Your task to perform on an android device: turn off location Image 0: 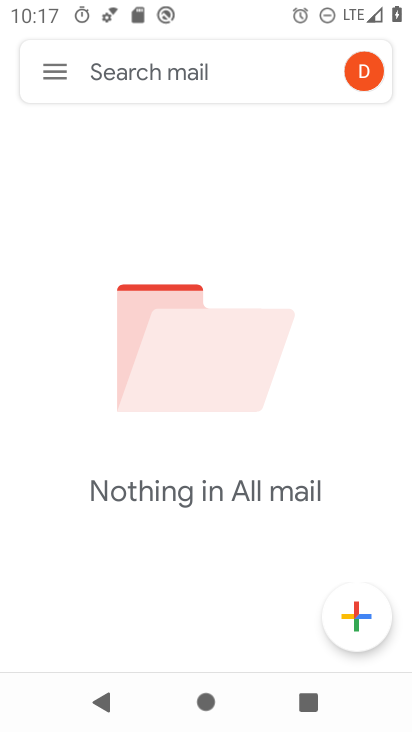
Step 0: press home button
Your task to perform on an android device: turn off location Image 1: 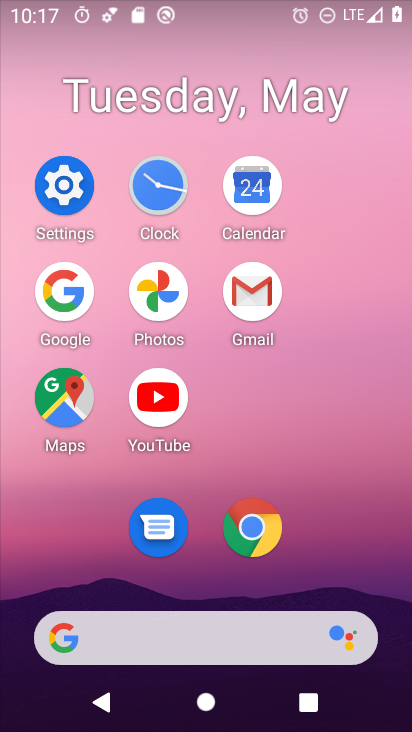
Step 1: click (61, 212)
Your task to perform on an android device: turn off location Image 2: 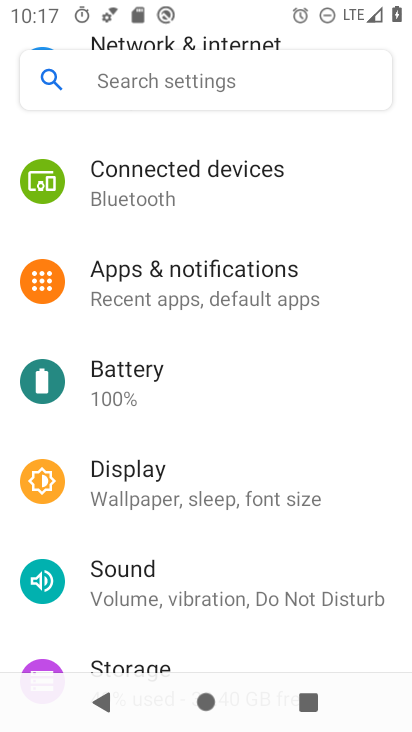
Step 2: drag from (192, 585) to (252, 262)
Your task to perform on an android device: turn off location Image 3: 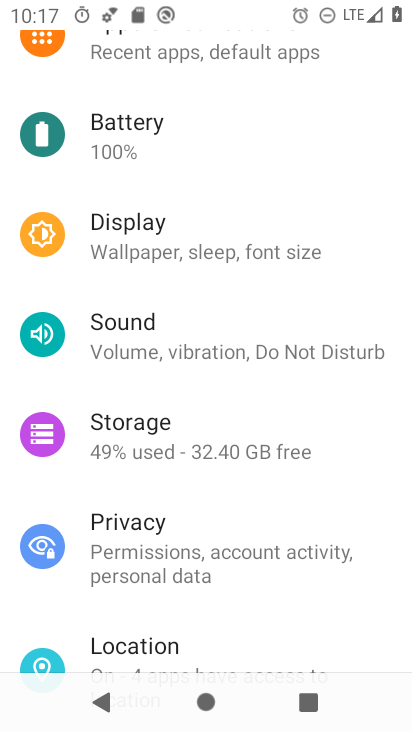
Step 3: click (172, 647)
Your task to perform on an android device: turn off location Image 4: 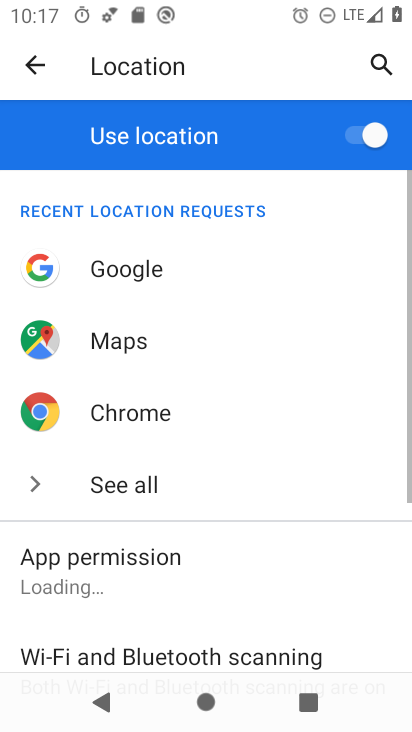
Step 4: click (379, 134)
Your task to perform on an android device: turn off location Image 5: 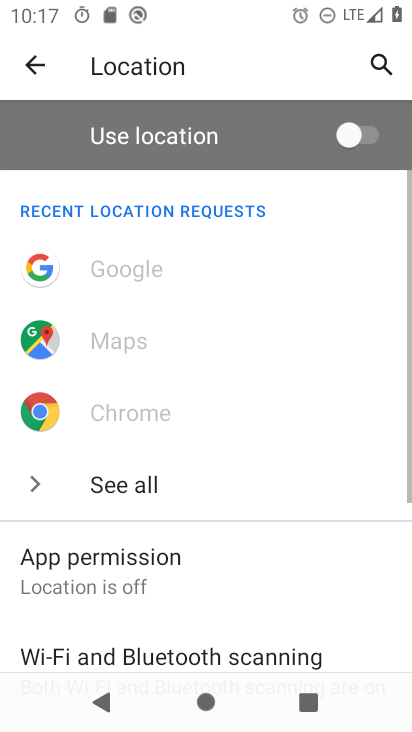
Step 5: task complete